Your task to perform on an android device: Open Google Chrome and click the shortcut for Amazon.com Image 0: 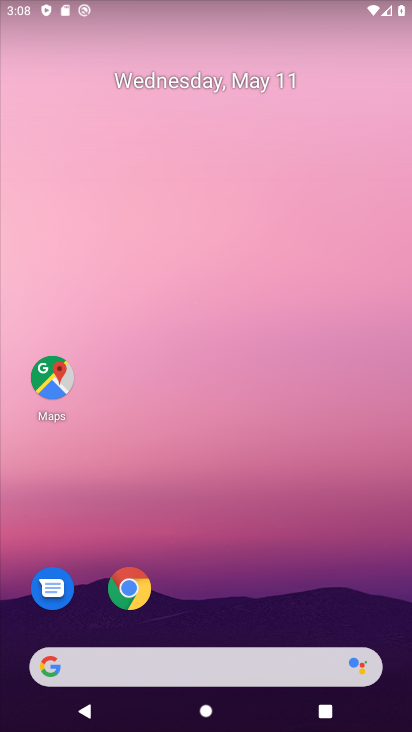
Step 0: drag from (214, 592) to (299, 8)
Your task to perform on an android device: Open Google Chrome and click the shortcut for Amazon.com Image 1: 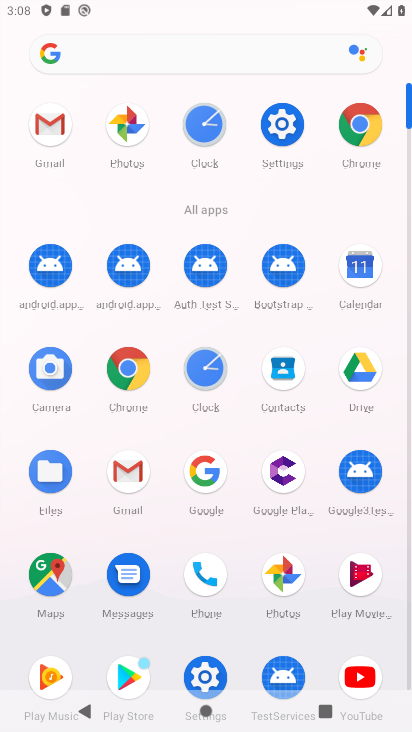
Step 1: click (117, 380)
Your task to perform on an android device: Open Google Chrome and click the shortcut for Amazon.com Image 2: 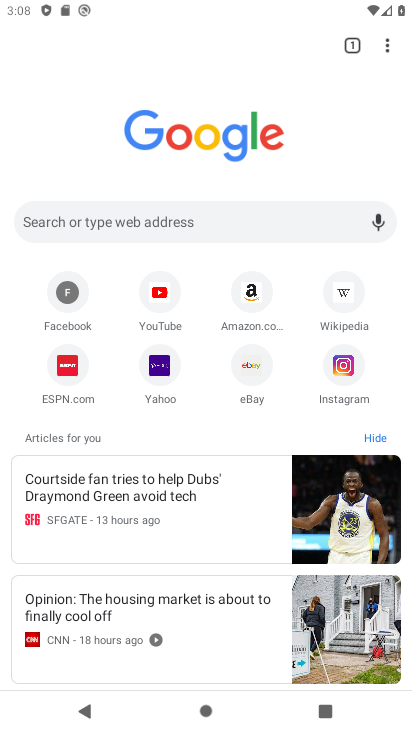
Step 2: click (391, 46)
Your task to perform on an android device: Open Google Chrome and click the shortcut for Amazon.com Image 3: 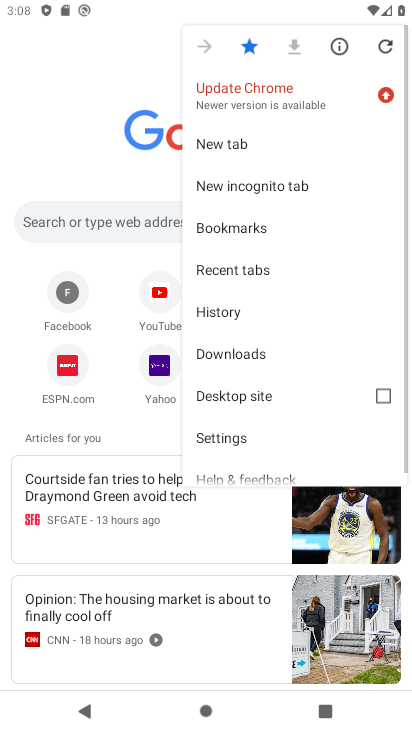
Step 3: click (59, 85)
Your task to perform on an android device: Open Google Chrome and click the shortcut for Amazon.com Image 4: 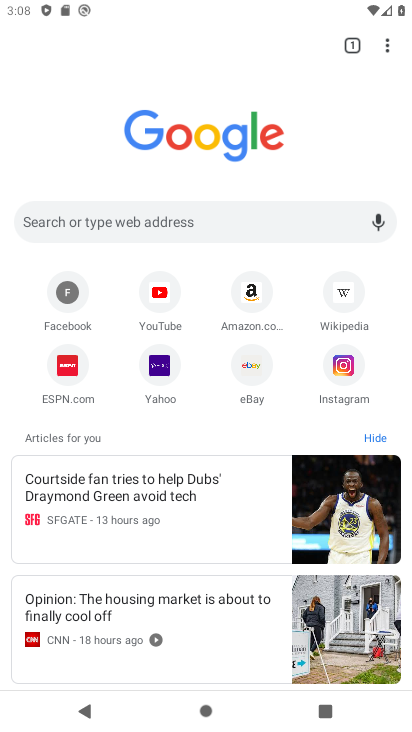
Step 4: click (226, 307)
Your task to perform on an android device: Open Google Chrome and click the shortcut for Amazon.com Image 5: 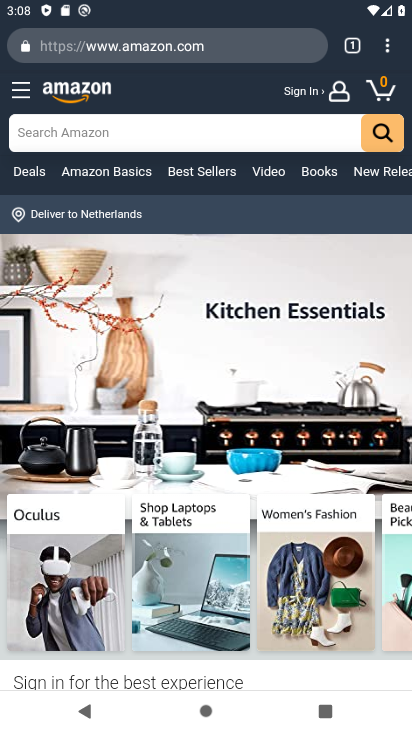
Step 5: task complete